Your task to perform on an android device: Open calendar and show me the third week of next month Image 0: 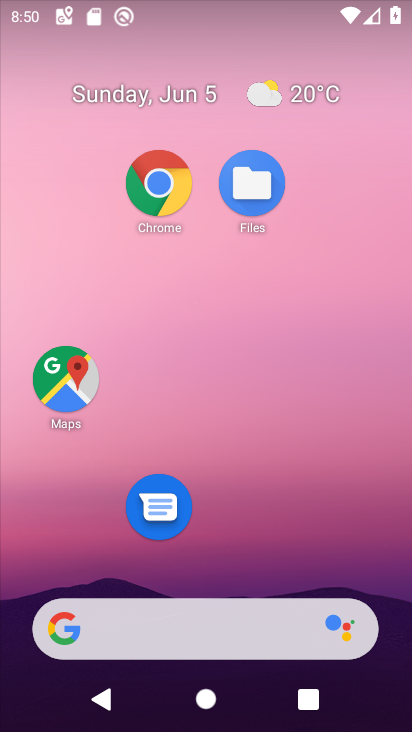
Step 0: drag from (220, 577) to (236, 26)
Your task to perform on an android device: Open calendar and show me the third week of next month Image 1: 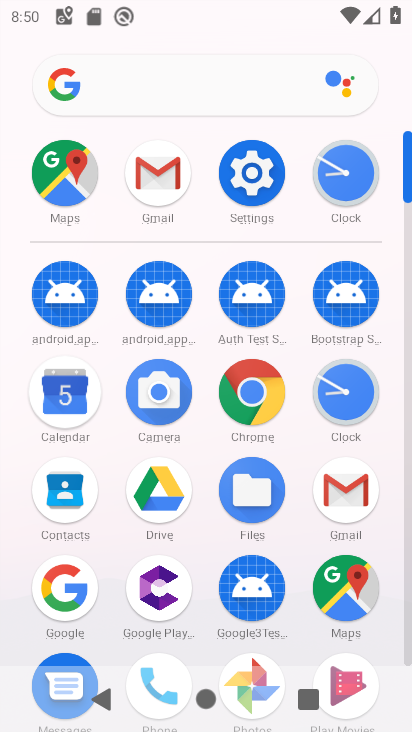
Step 1: click (74, 389)
Your task to perform on an android device: Open calendar and show me the third week of next month Image 2: 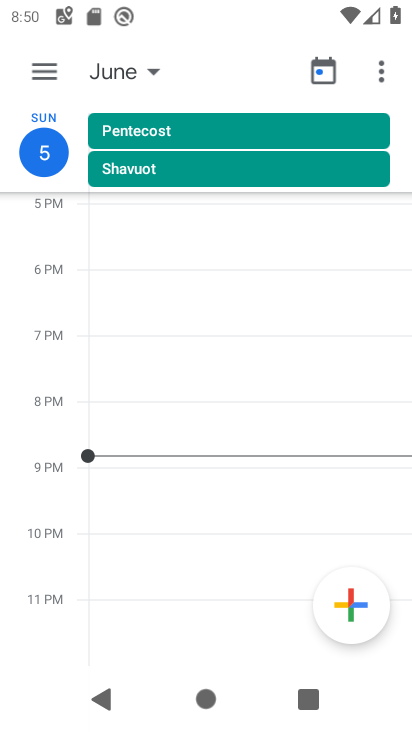
Step 2: click (49, 77)
Your task to perform on an android device: Open calendar and show me the third week of next month Image 3: 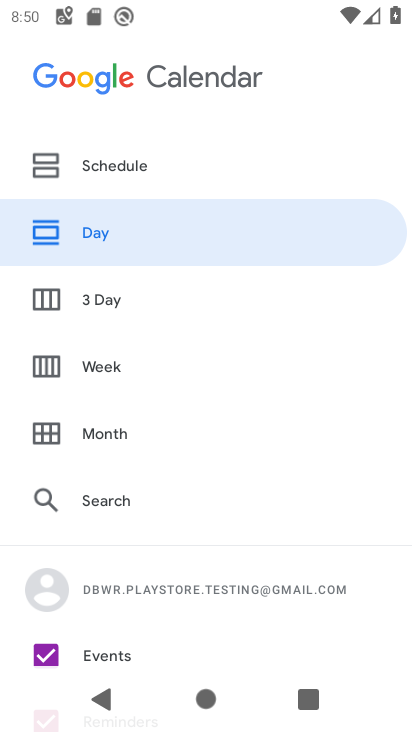
Step 3: click (116, 378)
Your task to perform on an android device: Open calendar and show me the third week of next month Image 4: 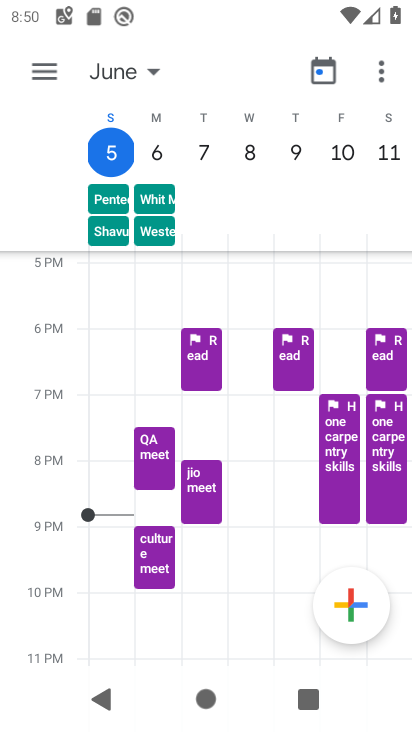
Step 4: task complete